Your task to perform on an android device: Open Yahoo.com Image 0: 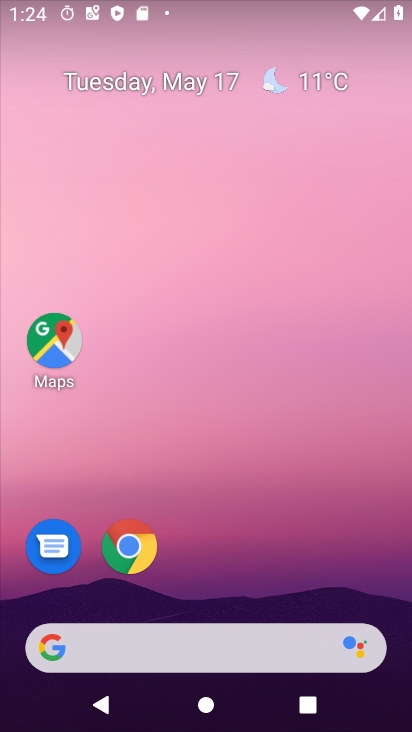
Step 0: click (126, 556)
Your task to perform on an android device: Open Yahoo.com Image 1: 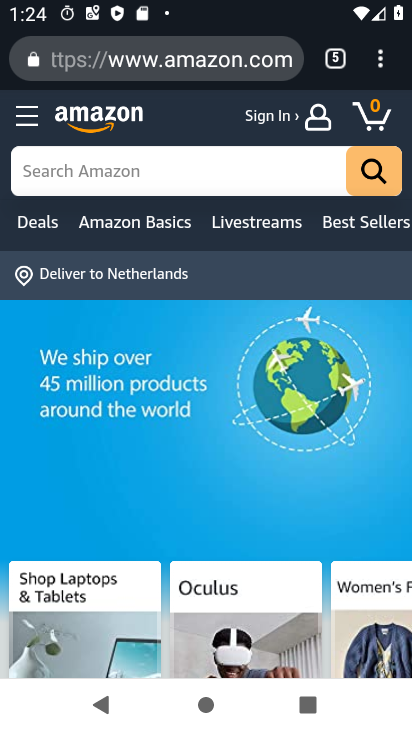
Step 1: drag from (388, 67) to (259, 130)
Your task to perform on an android device: Open Yahoo.com Image 2: 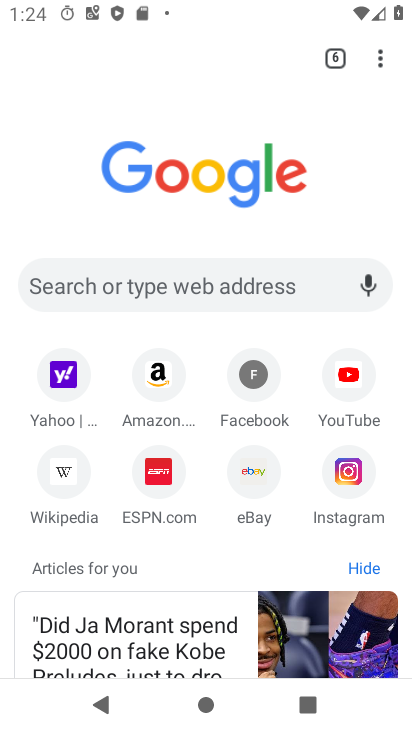
Step 2: click (52, 373)
Your task to perform on an android device: Open Yahoo.com Image 3: 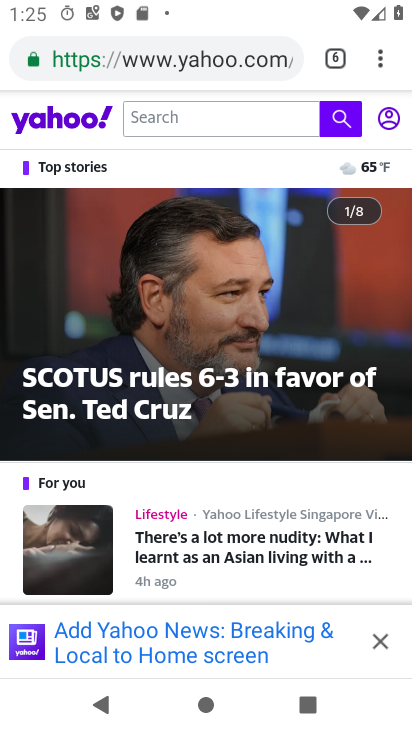
Step 3: task complete